Your task to perform on an android device: set the timer Image 0: 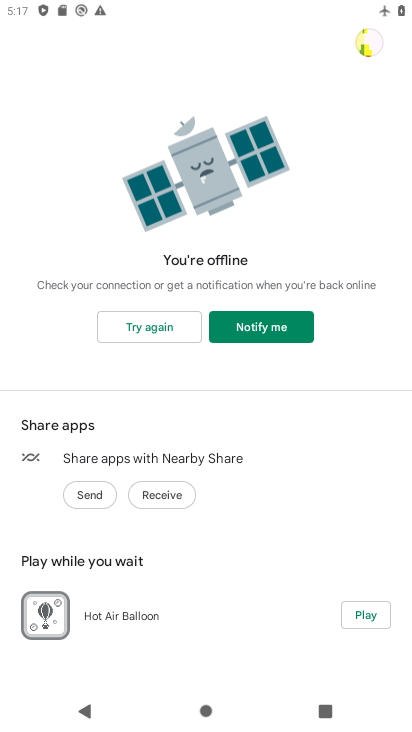
Step 0: press home button
Your task to perform on an android device: set the timer Image 1: 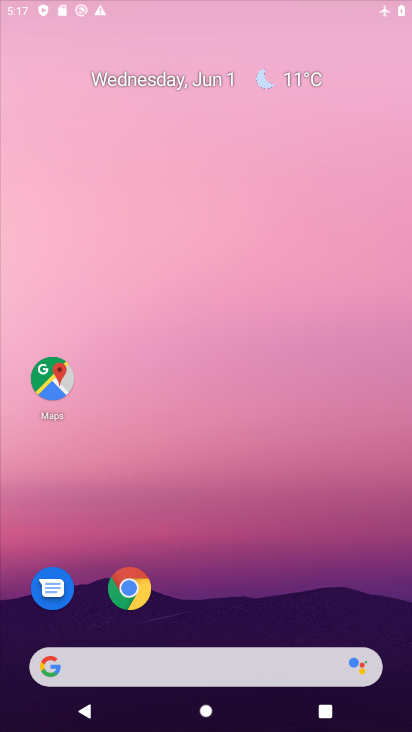
Step 1: drag from (194, 673) to (282, 174)
Your task to perform on an android device: set the timer Image 2: 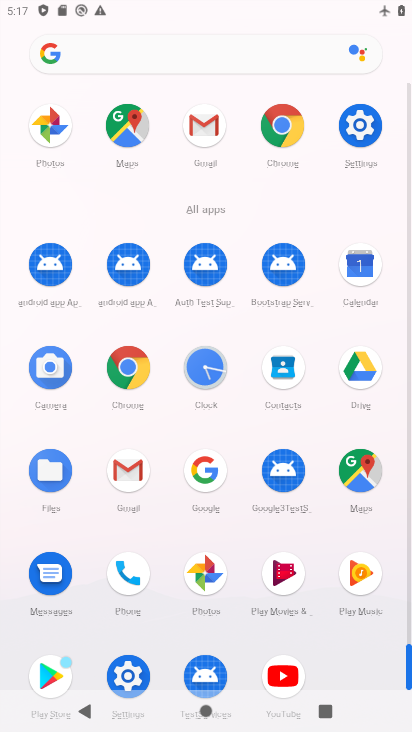
Step 2: click (210, 385)
Your task to perform on an android device: set the timer Image 3: 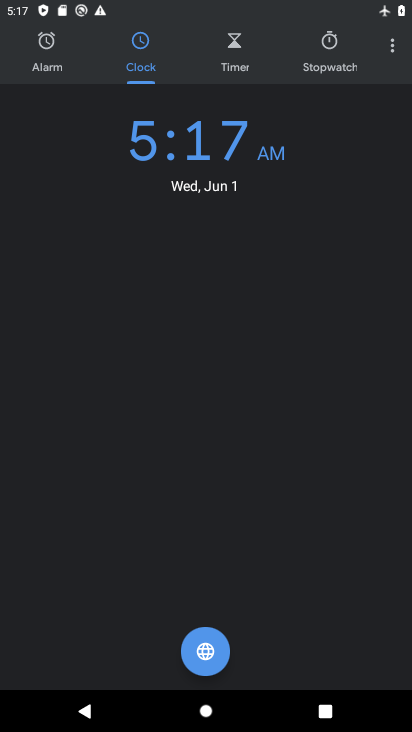
Step 3: click (244, 54)
Your task to perform on an android device: set the timer Image 4: 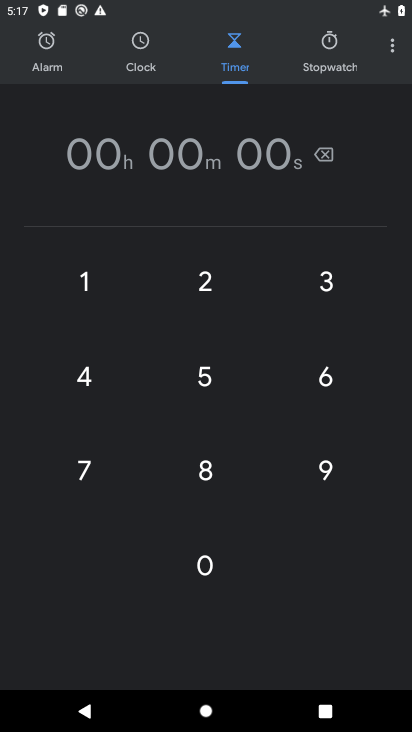
Step 4: click (202, 291)
Your task to perform on an android device: set the timer Image 5: 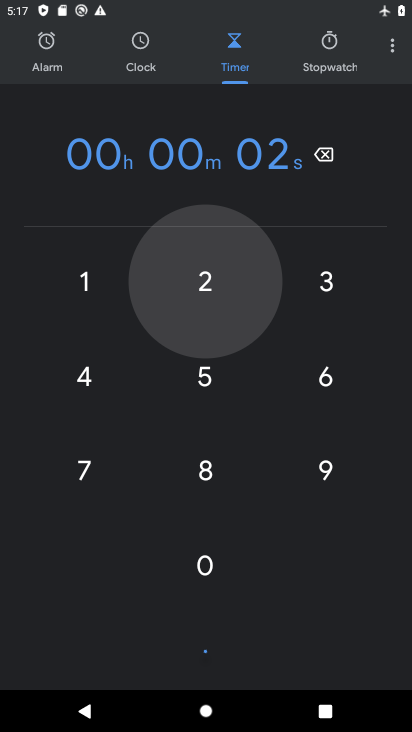
Step 5: click (200, 569)
Your task to perform on an android device: set the timer Image 6: 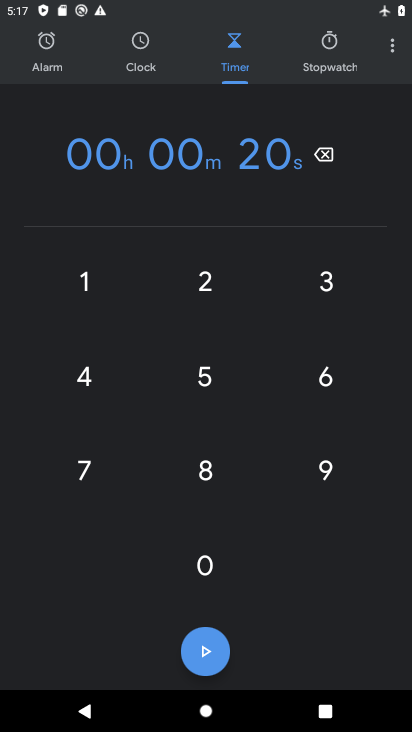
Step 6: click (198, 665)
Your task to perform on an android device: set the timer Image 7: 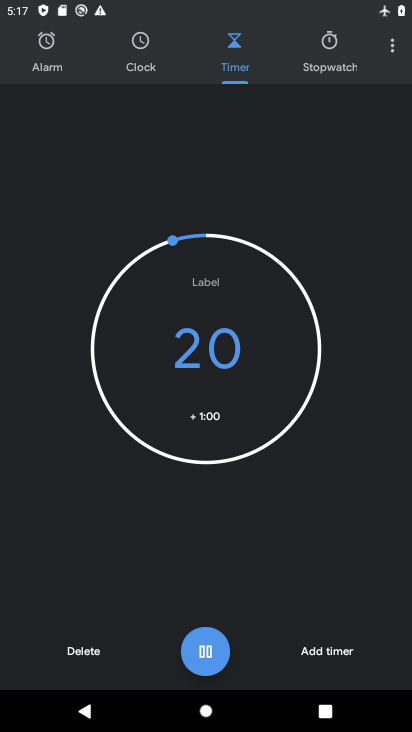
Step 7: task complete